Your task to perform on an android device: Open Google Chrome and click the shortcut for Amazon.com Image 0: 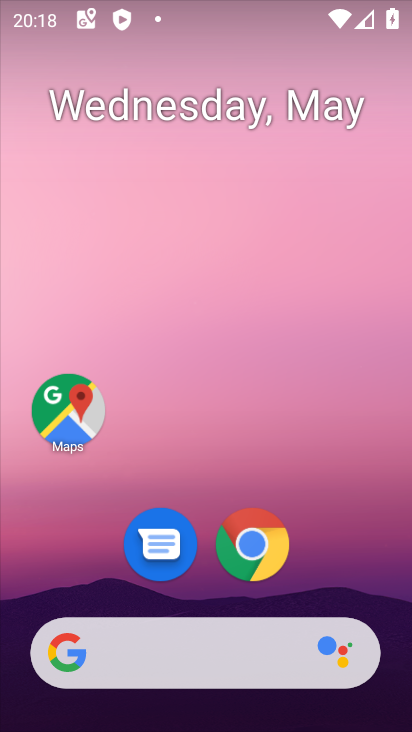
Step 0: click (245, 543)
Your task to perform on an android device: Open Google Chrome and click the shortcut for Amazon.com Image 1: 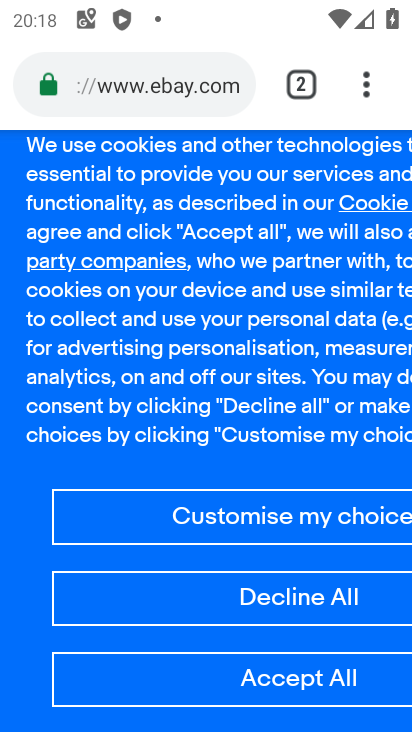
Step 1: click (299, 85)
Your task to perform on an android device: Open Google Chrome and click the shortcut for Amazon.com Image 2: 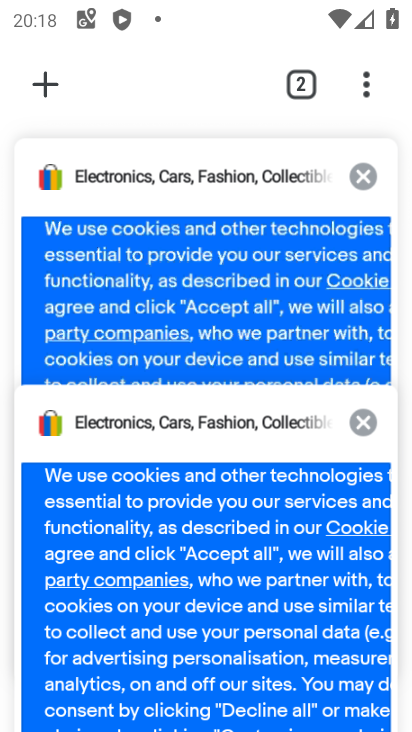
Step 2: click (45, 87)
Your task to perform on an android device: Open Google Chrome and click the shortcut for Amazon.com Image 3: 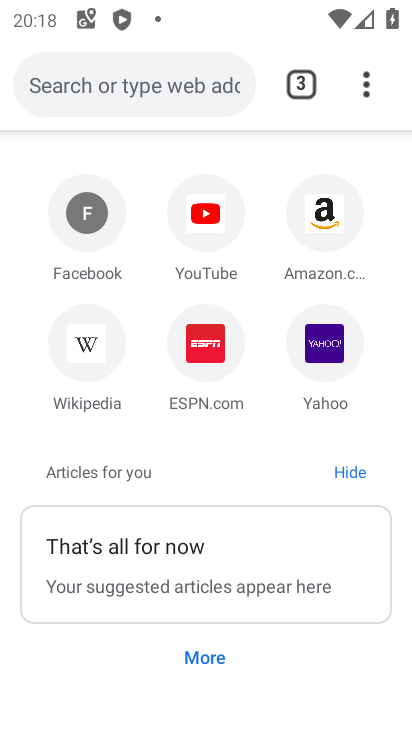
Step 3: click (311, 220)
Your task to perform on an android device: Open Google Chrome and click the shortcut for Amazon.com Image 4: 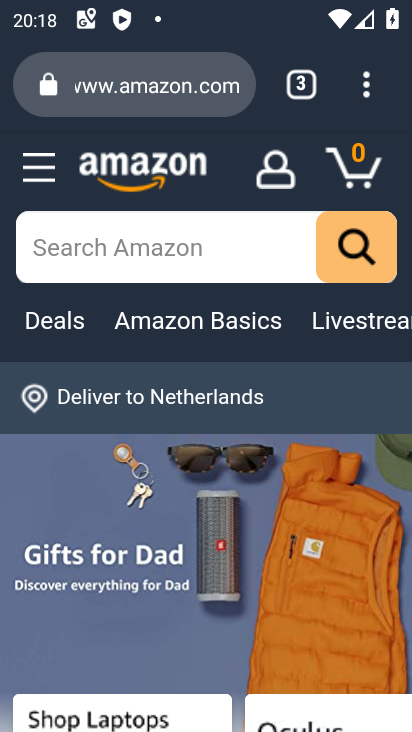
Step 4: task complete